Your task to perform on an android device: turn on wifi Image 0: 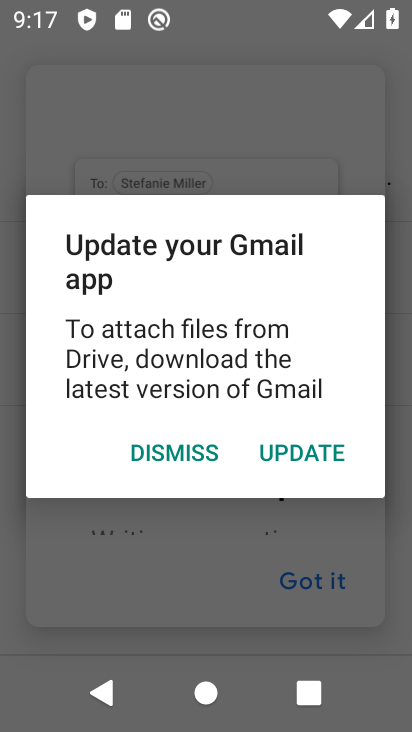
Step 0: press home button
Your task to perform on an android device: turn on wifi Image 1: 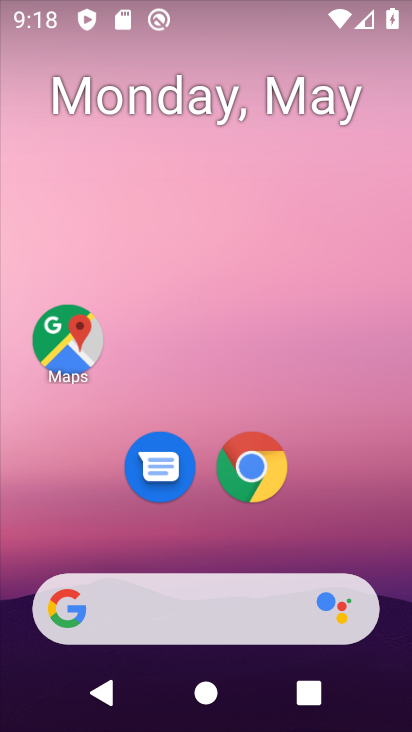
Step 1: drag from (142, 584) to (244, 2)
Your task to perform on an android device: turn on wifi Image 2: 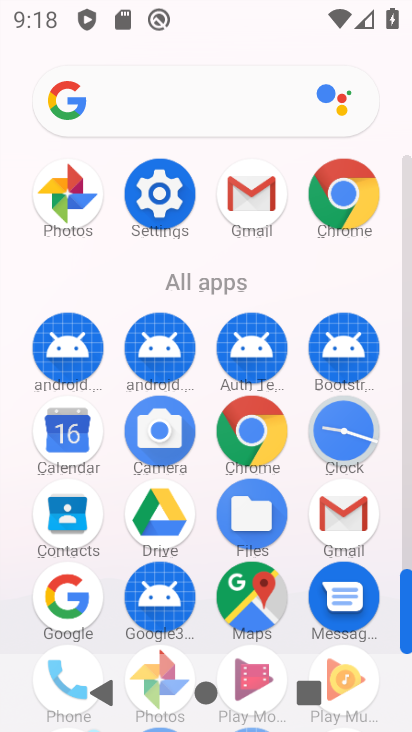
Step 2: drag from (173, 558) to (274, 149)
Your task to perform on an android device: turn on wifi Image 3: 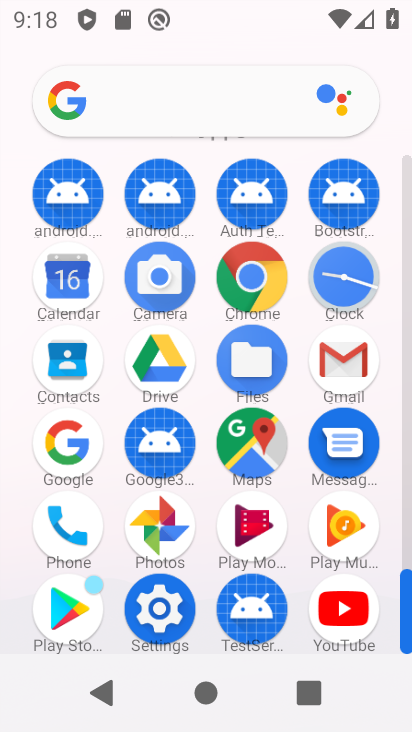
Step 3: click (155, 624)
Your task to perform on an android device: turn on wifi Image 4: 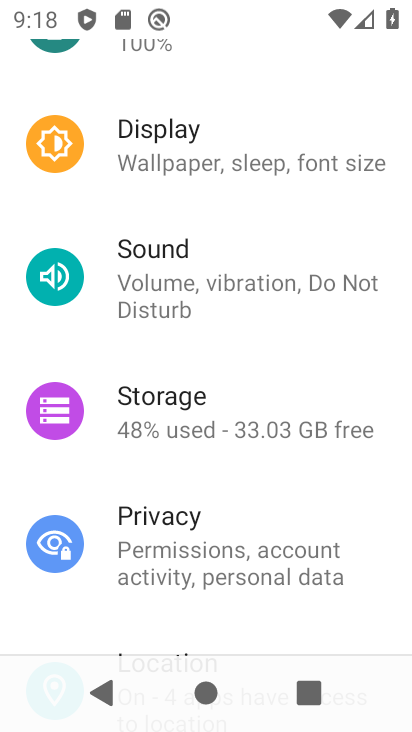
Step 4: drag from (194, 153) to (160, 458)
Your task to perform on an android device: turn on wifi Image 5: 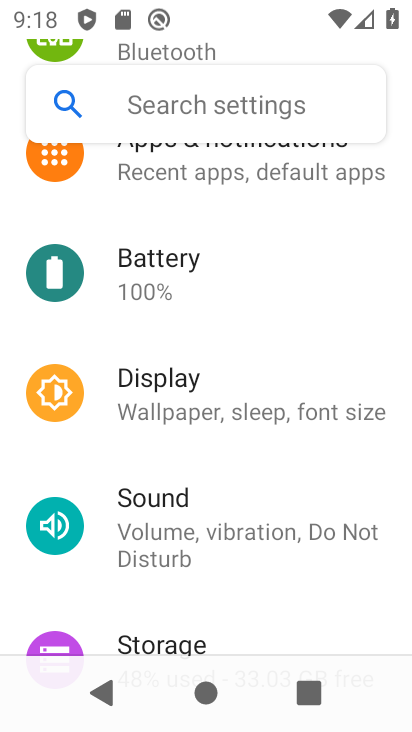
Step 5: drag from (208, 181) to (164, 491)
Your task to perform on an android device: turn on wifi Image 6: 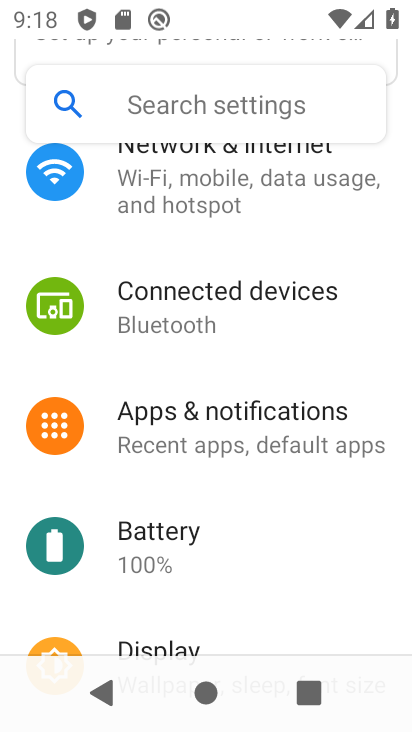
Step 6: click (250, 188)
Your task to perform on an android device: turn on wifi Image 7: 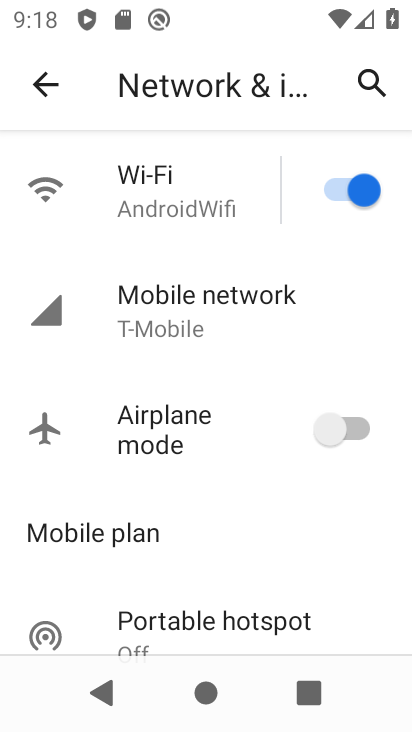
Step 7: task complete